Your task to perform on an android device: Search for pizza restaurants on Maps Image 0: 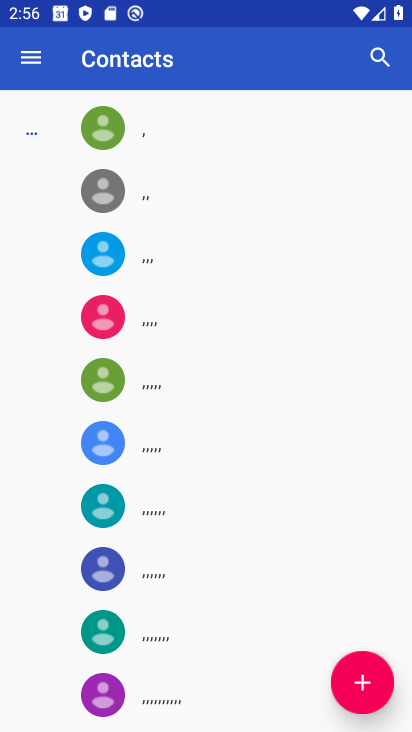
Step 0: press home button
Your task to perform on an android device: Search for pizza restaurants on Maps Image 1: 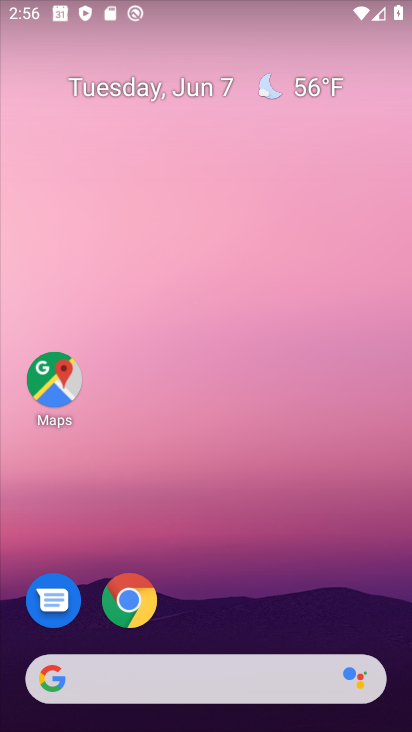
Step 1: click (43, 376)
Your task to perform on an android device: Search for pizza restaurants on Maps Image 2: 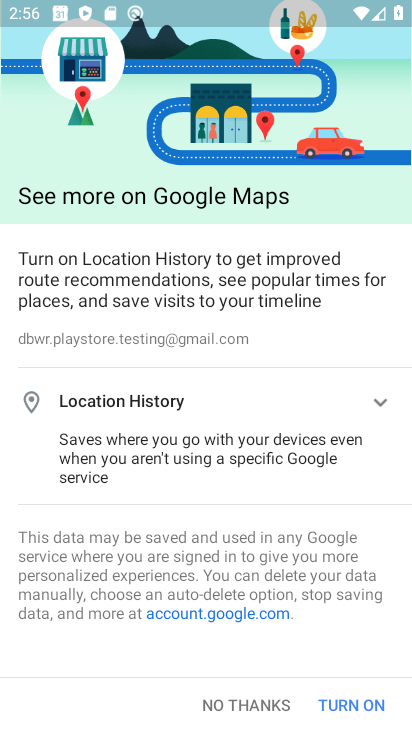
Step 2: click (346, 693)
Your task to perform on an android device: Search for pizza restaurants on Maps Image 3: 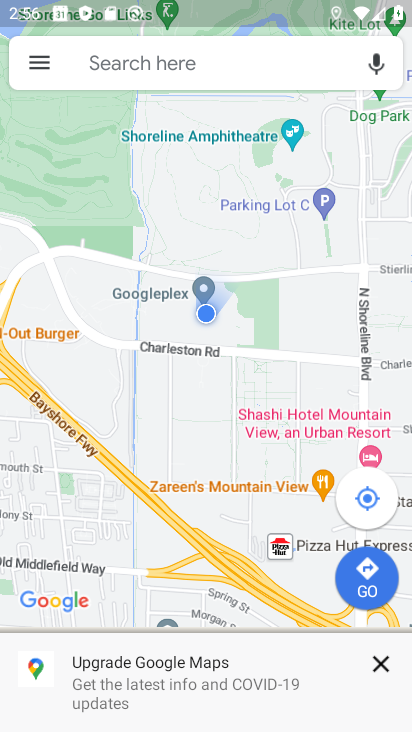
Step 3: click (113, 54)
Your task to perform on an android device: Search for pizza restaurants on Maps Image 4: 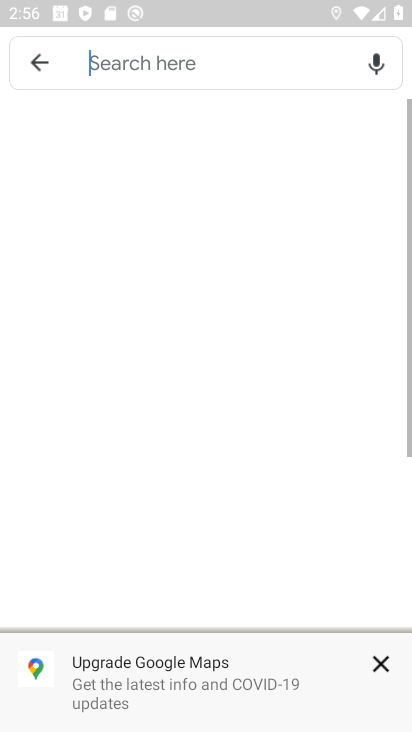
Step 4: click (108, 62)
Your task to perform on an android device: Search for pizza restaurants on Maps Image 5: 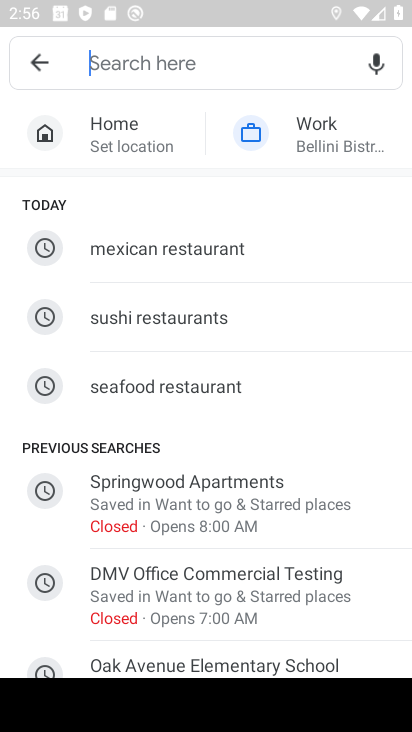
Step 5: type "pizza restaurants"
Your task to perform on an android device: Search for pizza restaurants on Maps Image 6: 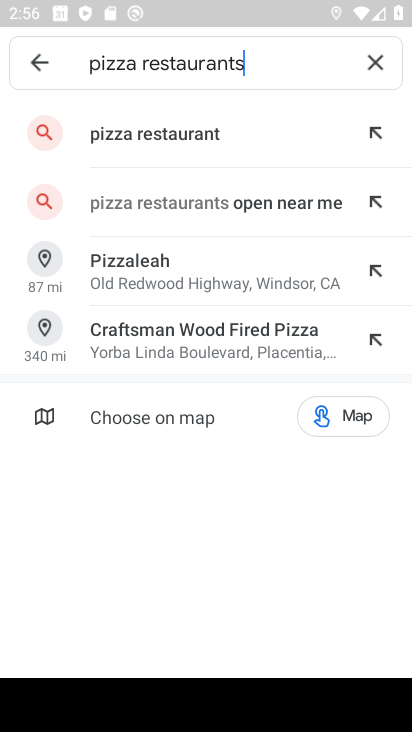
Step 6: click (189, 136)
Your task to perform on an android device: Search for pizza restaurants on Maps Image 7: 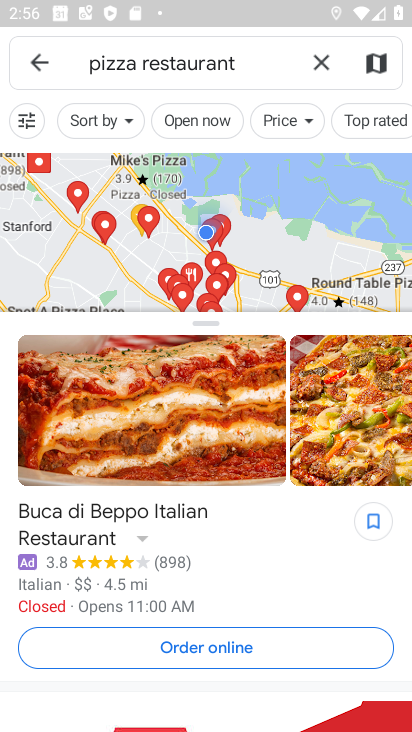
Step 7: task complete